Your task to perform on an android device: search for starred emails in the gmail app Image 0: 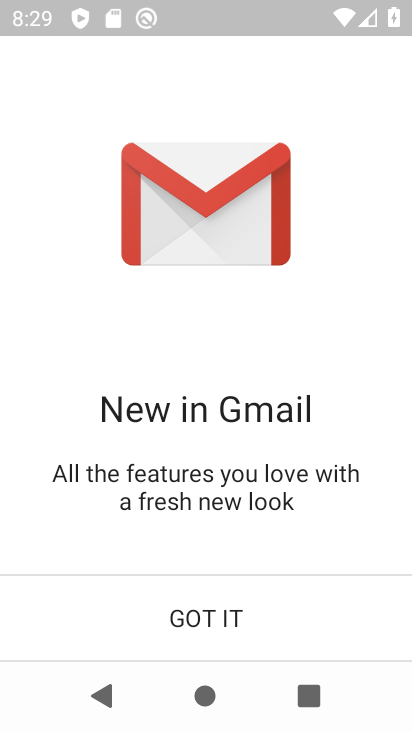
Step 0: press home button
Your task to perform on an android device: search for starred emails in the gmail app Image 1: 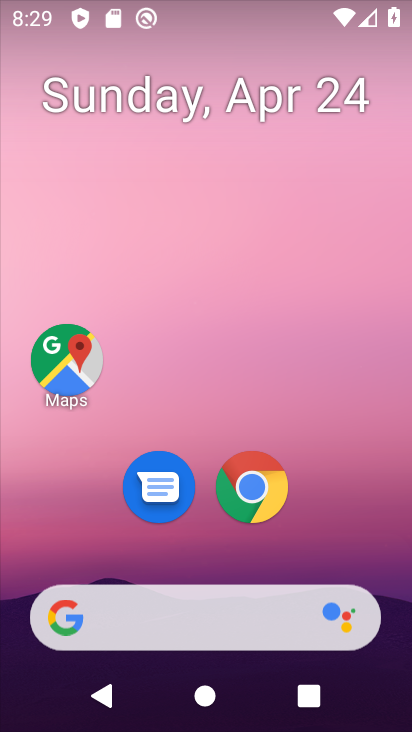
Step 1: drag from (329, 520) to (291, 142)
Your task to perform on an android device: search for starred emails in the gmail app Image 2: 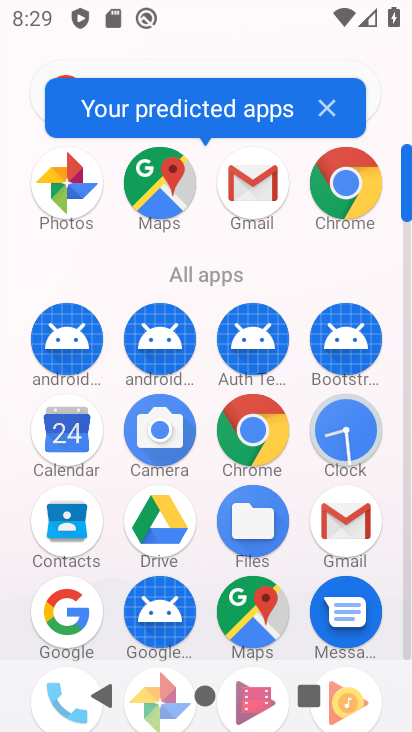
Step 2: click (264, 196)
Your task to perform on an android device: search for starred emails in the gmail app Image 3: 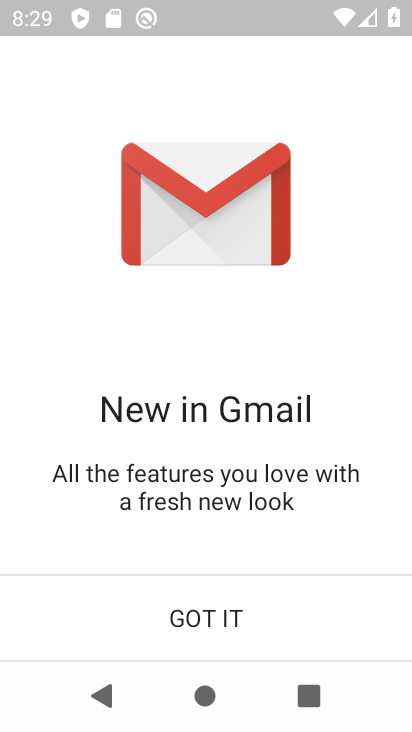
Step 3: click (195, 618)
Your task to perform on an android device: search for starred emails in the gmail app Image 4: 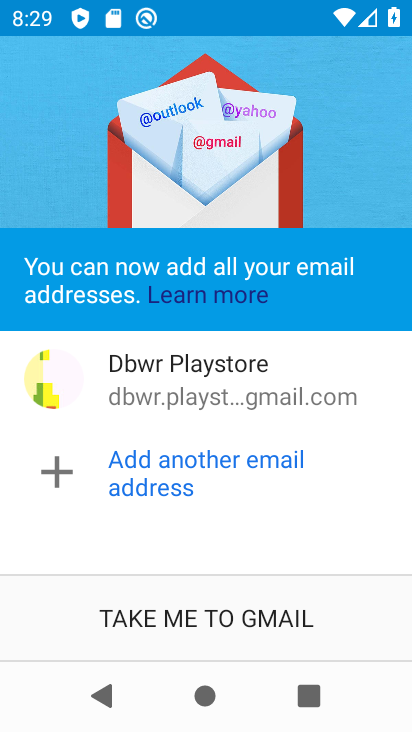
Step 4: click (196, 618)
Your task to perform on an android device: search for starred emails in the gmail app Image 5: 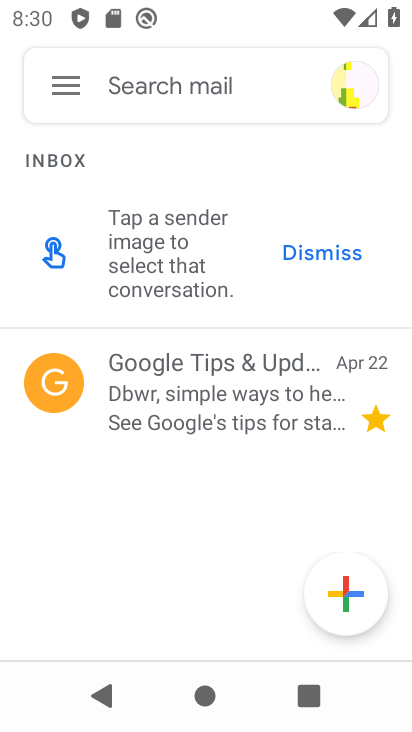
Step 5: click (66, 71)
Your task to perform on an android device: search for starred emails in the gmail app Image 6: 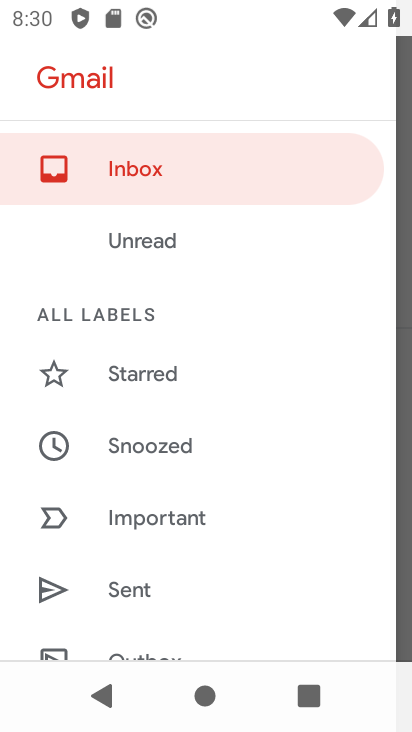
Step 6: click (149, 372)
Your task to perform on an android device: search for starred emails in the gmail app Image 7: 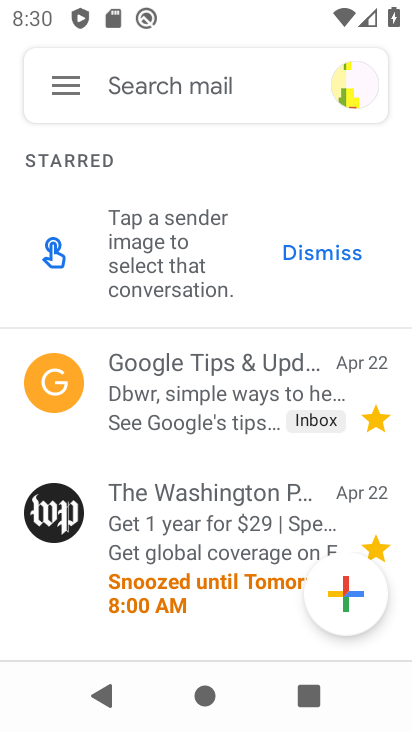
Step 7: task complete